Your task to perform on an android device: install app "Google Drive" Image 0: 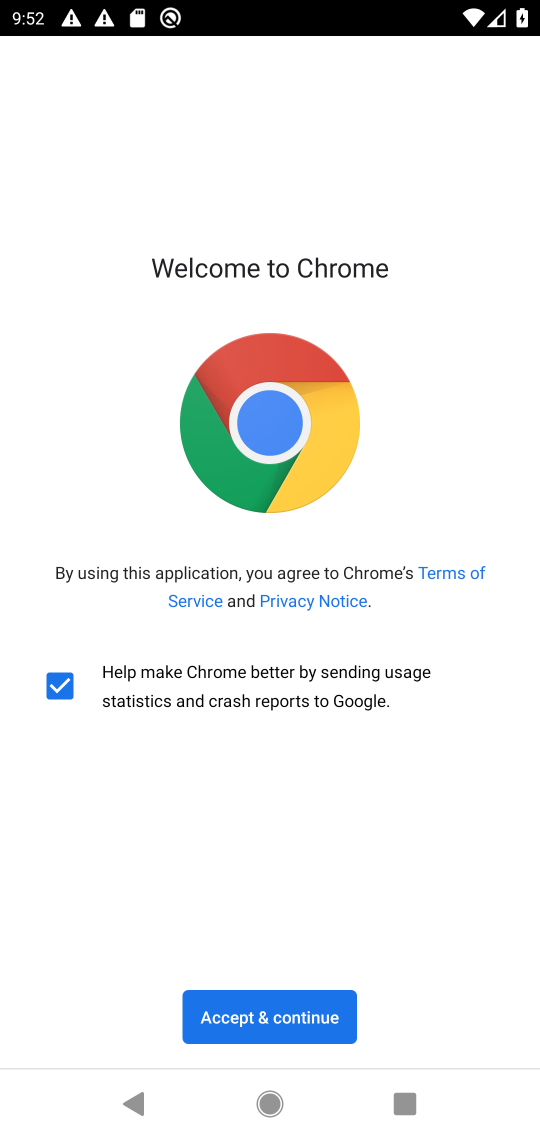
Step 0: press home button
Your task to perform on an android device: install app "Google Drive" Image 1: 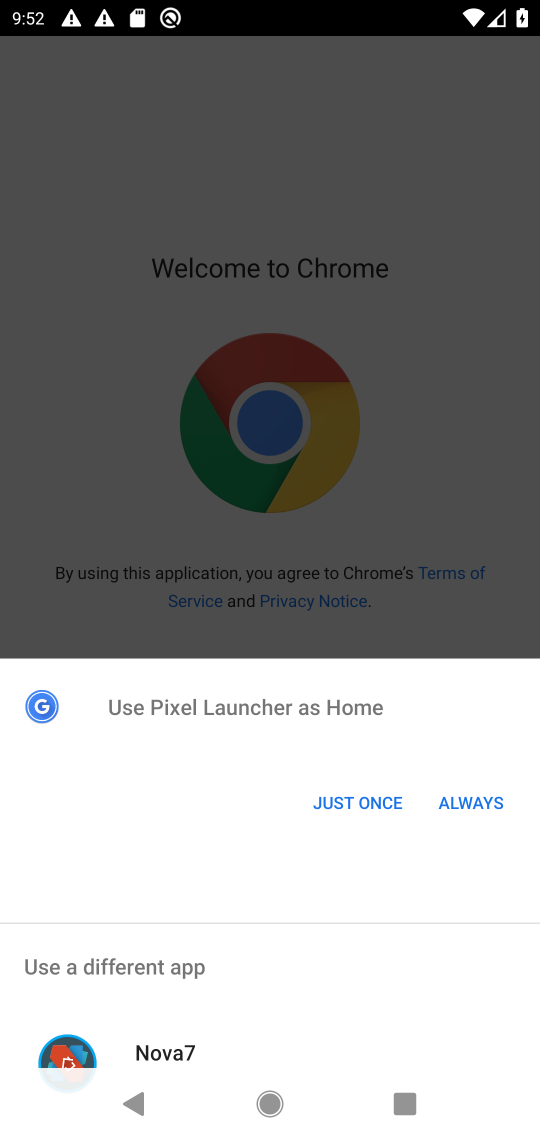
Step 1: click (316, 810)
Your task to perform on an android device: install app "Google Drive" Image 2: 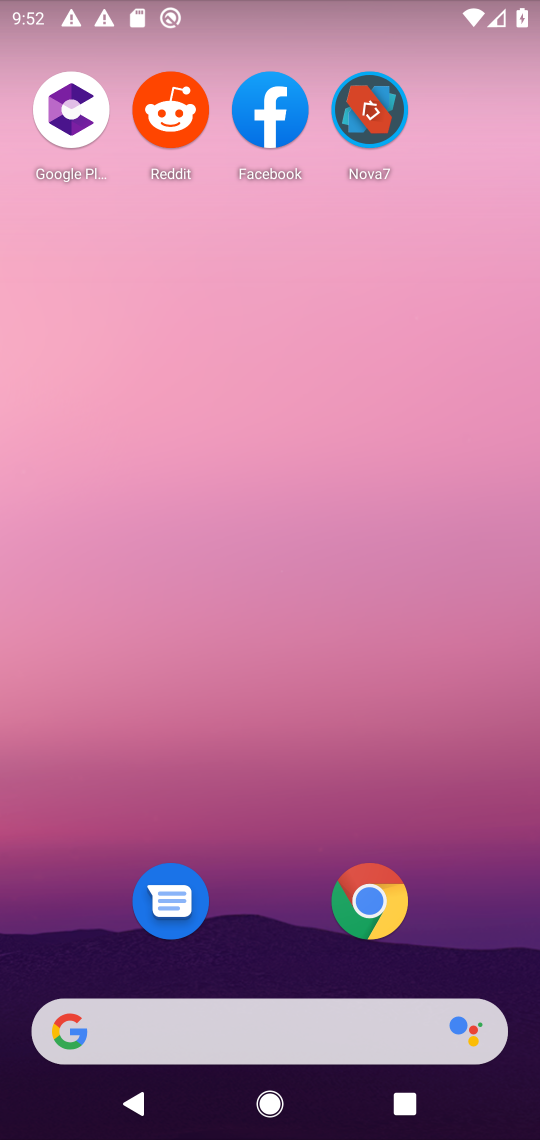
Step 2: drag from (346, 845) to (450, 53)
Your task to perform on an android device: install app "Google Drive" Image 3: 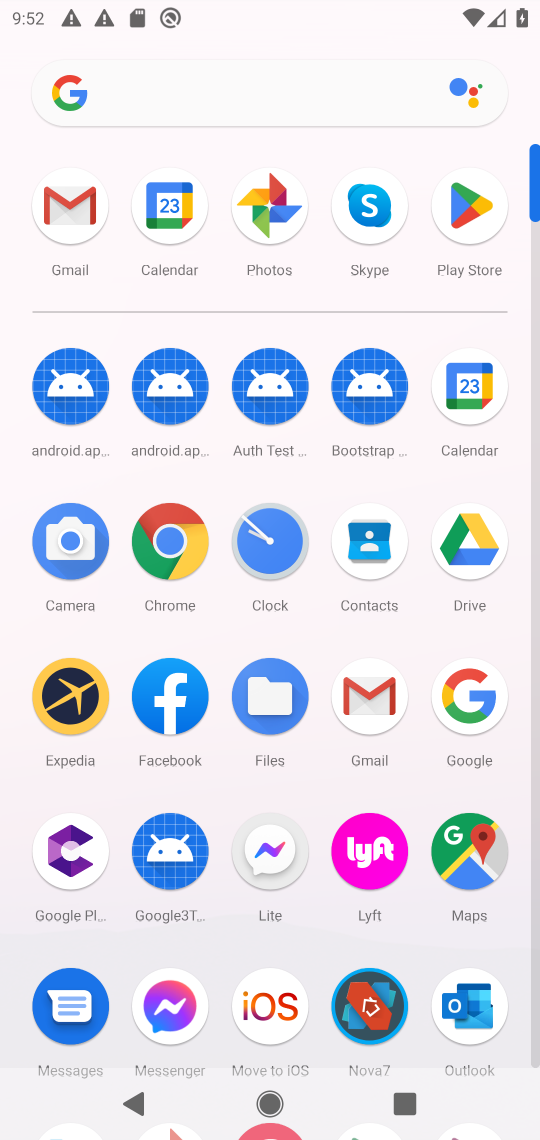
Step 3: click (465, 211)
Your task to perform on an android device: install app "Google Drive" Image 4: 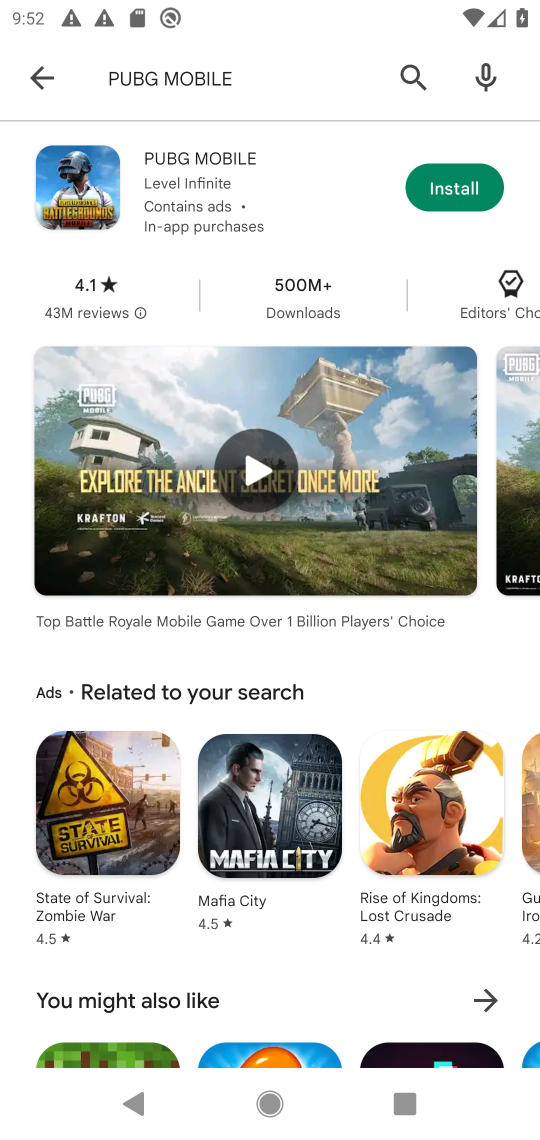
Step 4: press back button
Your task to perform on an android device: install app "Google Drive" Image 5: 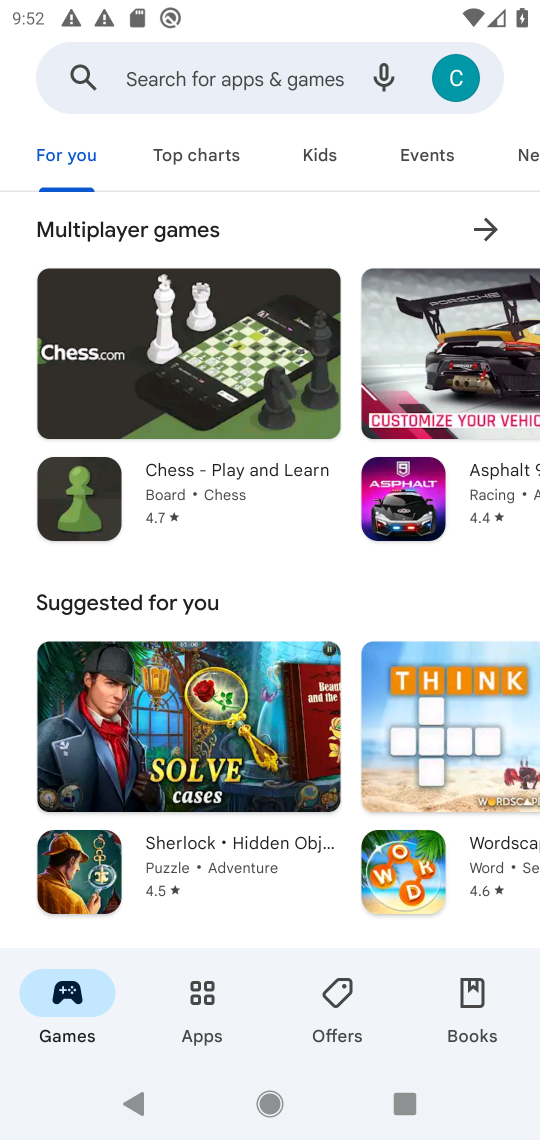
Step 5: click (313, 95)
Your task to perform on an android device: install app "Google Drive" Image 6: 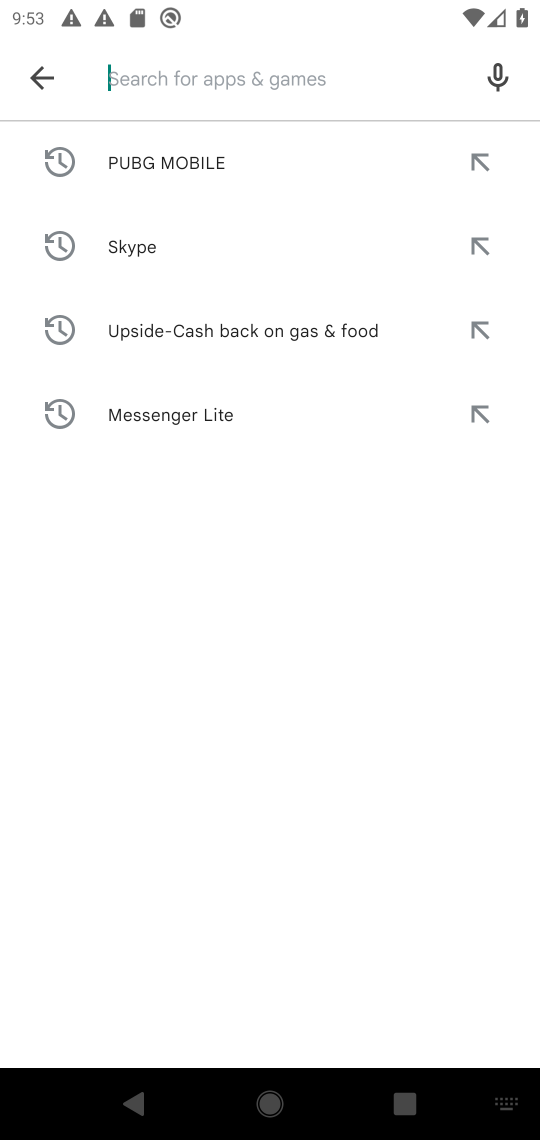
Step 6: type "Google Drive"
Your task to perform on an android device: install app "Google Drive" Image 7: 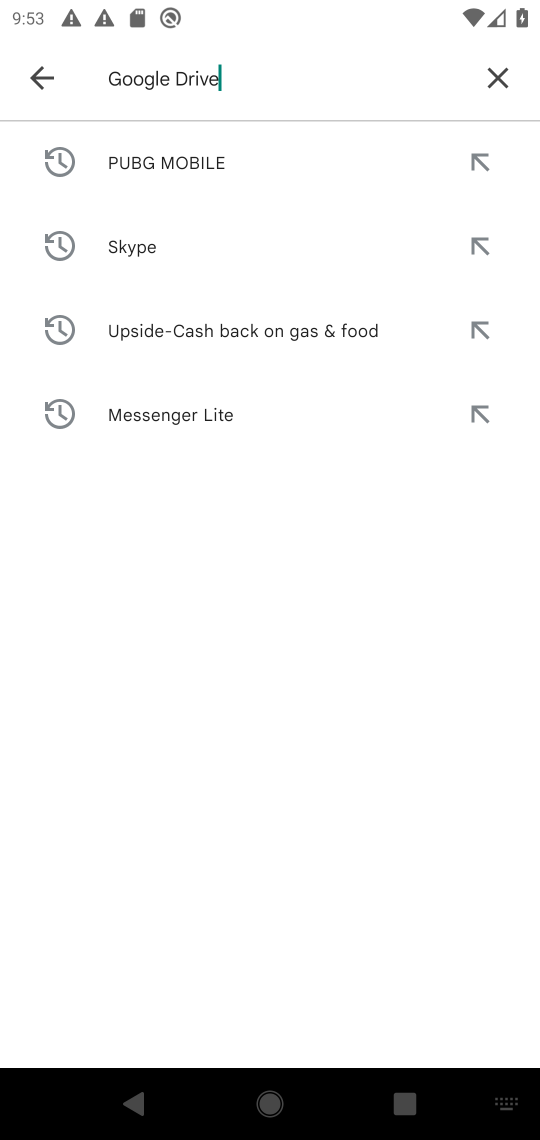
Step 7: press enter
Your task to perform on an android device: install app "Google Drive" Image 8: 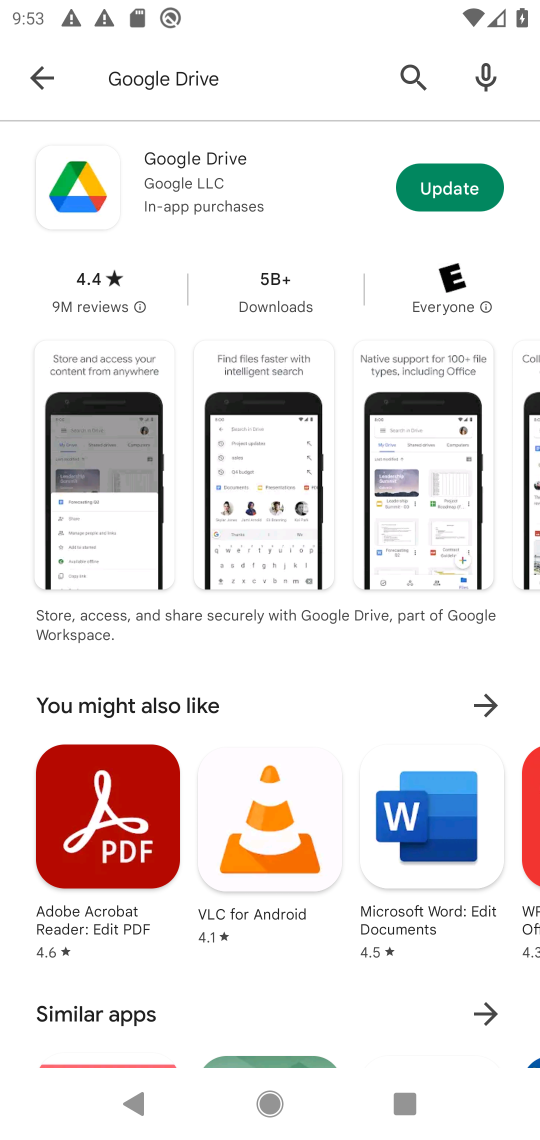
Step 8: click (475, 184)
Your task to perform on an android device: install app "Google Drive" Image 9: 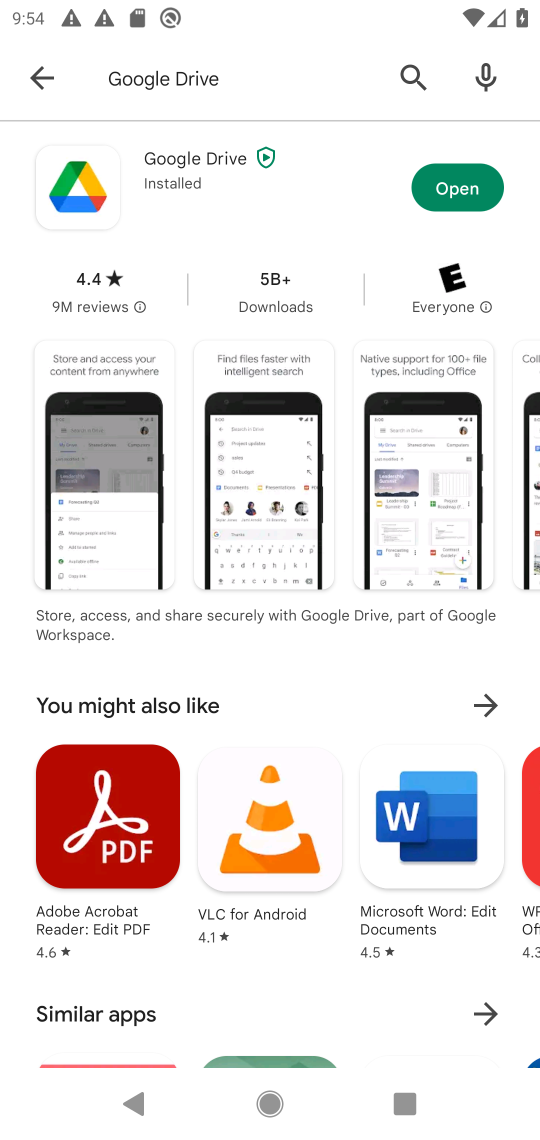
Step 9: click (470, 190)
Your task to perform on an android device: install app "Google Drive" Image 10: 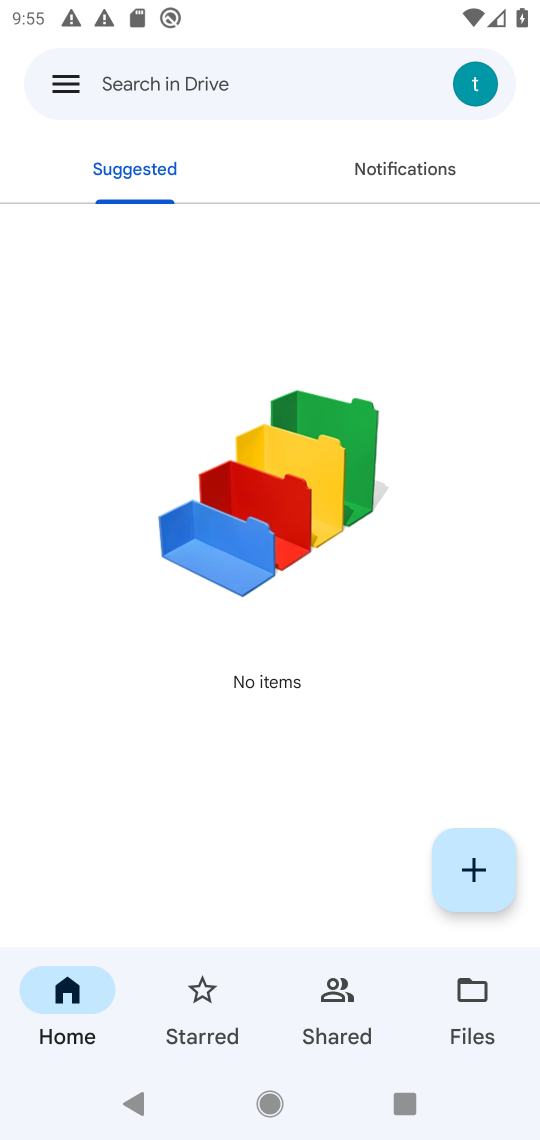
Step 10: task complete